Your task to perform on an android device: Show me productivity apps on the Play Store Image 0: 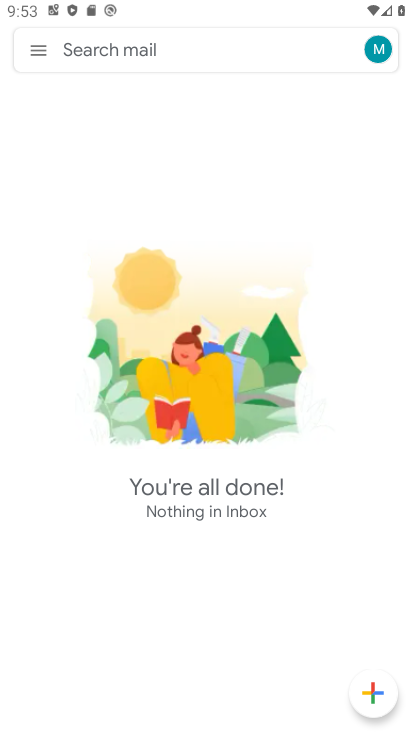
Step 0: press home button
Your task to perform on an android device: Show me productivity apps on the Play Store Image 1: 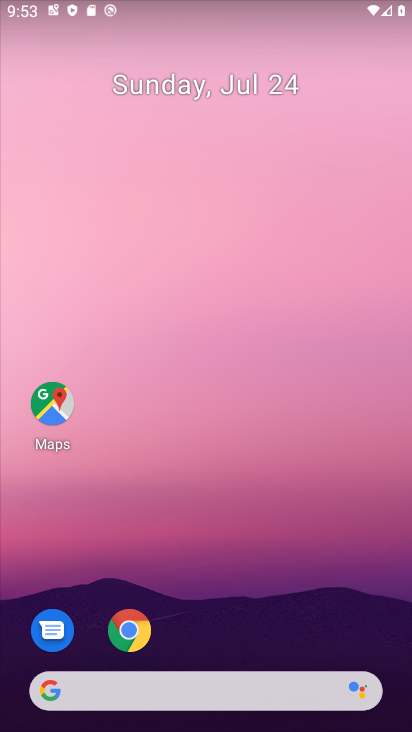
Step 1: drag from (215, 581) to (215, 89)
Your task to perform on an android device: Show me productivity apps on the Play Store Image 2: 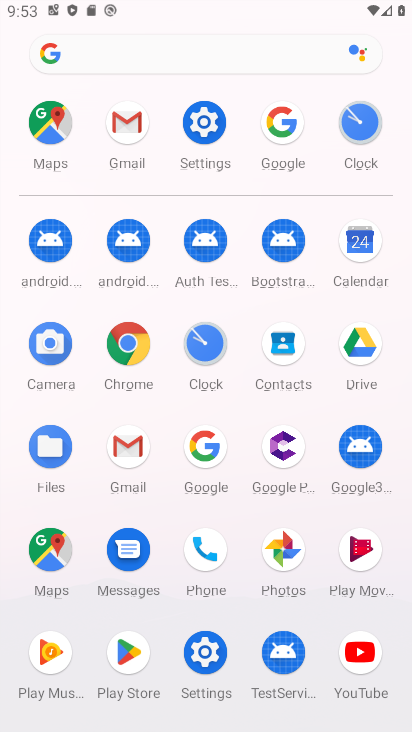
Step 2: click (143, 652)
Your task to perform on an android device: Show me productivity apps on the Play Store Image 3: 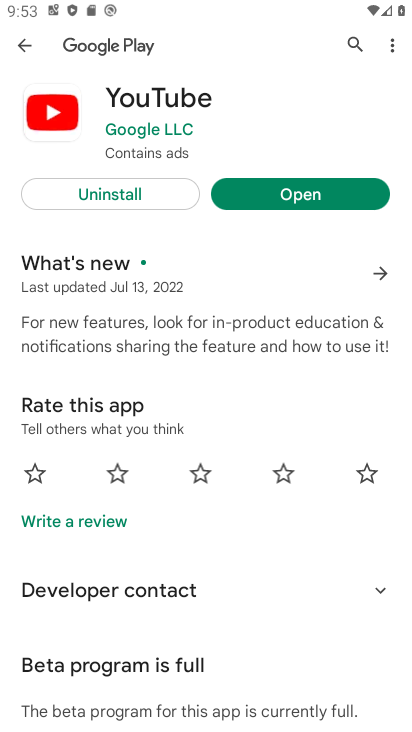
Step 3: click (23, 52)
Your task to perform on an android device: Show me productivity apps on the Play Store Image 4: 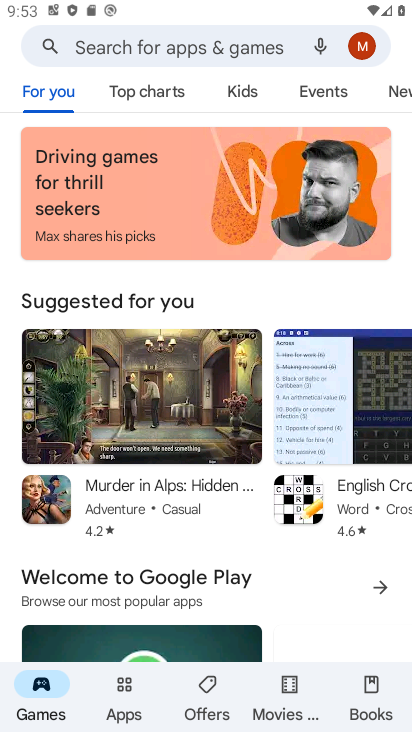
Step 4: click (134, 694)
Your task to perform on an android device: Show me productivity apps on the Play Store Image 5: 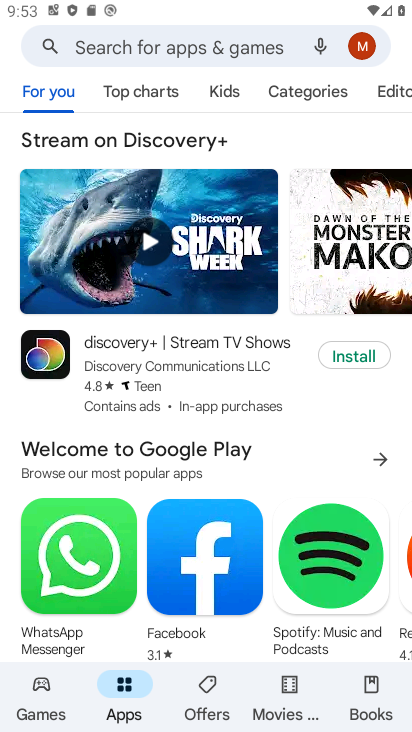
Step 5: click (327, 104)
Your task to perform on an android device: Show me productivity apps on the Play Store Image 6: 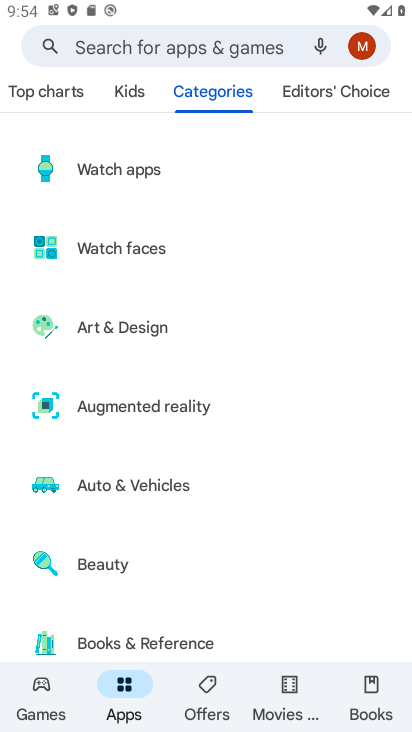
Step 6: click (157, 114)
Your task to perform on an android device: Show me productivity apps on the Play Store Image 7: 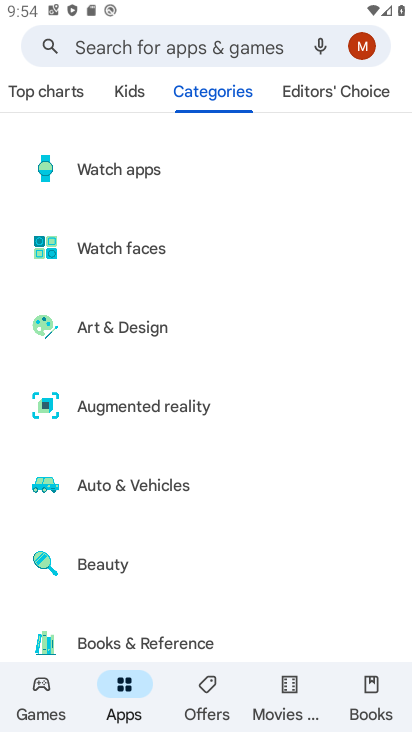
Step 7: drag from (150, 524) to (191, 218)
Your task to perform on an android device: Show me productivity apps on the Play Store Image 8: 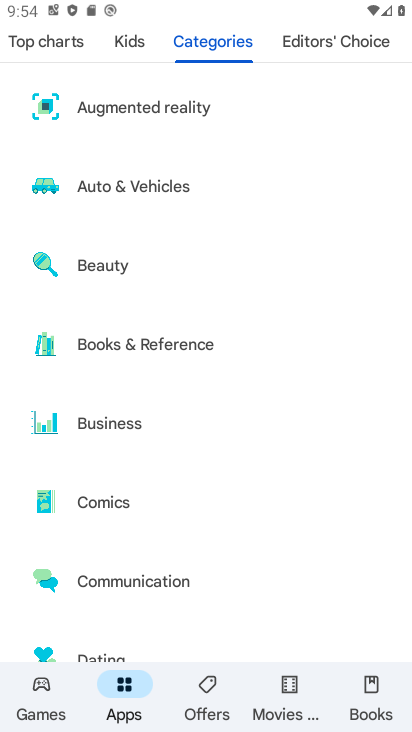
Step 8: drag from (189, 556) to (198, 192)
Your task to perform on an android device: Show me productivity apps on the Play Store Image 9: 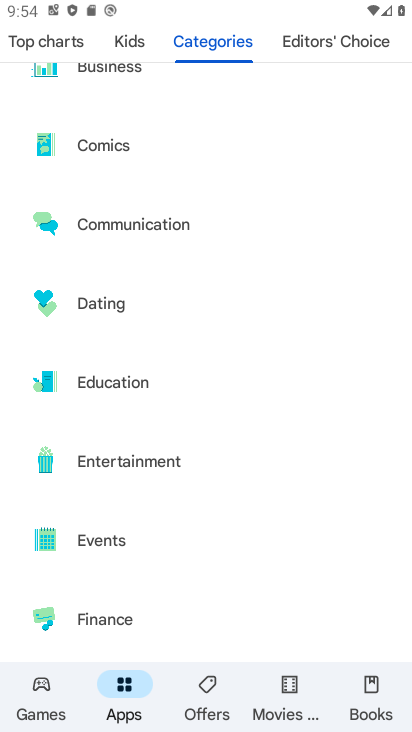
Step 9: drag from (178, 579) to (216, 201)
Your task to perform on an android device: Show me productivity apps on the Play Store Image 10: 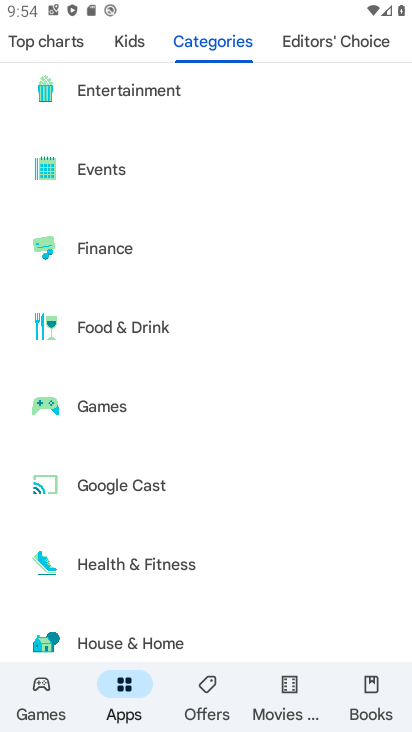
Step 10: drag from (164, 604) to (173, 181)
Your task to perform on an android device: Show me productivity apps on the Play Store Image 11: 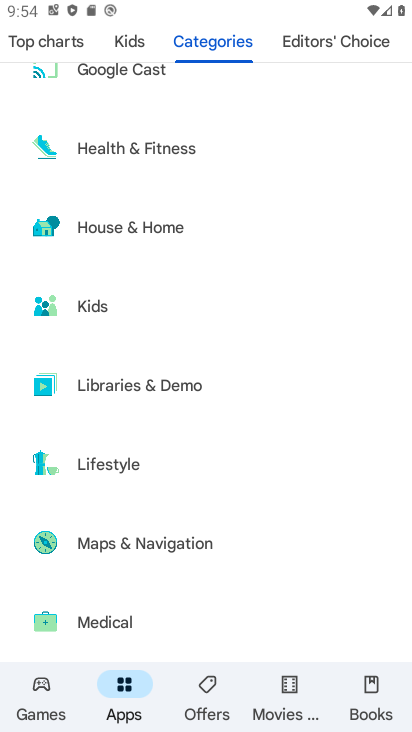
Step 11: drag from (162, 552) to (188, 176)
Your task to perform on an android device: Show me productivity apps on the Play Store Image 12: 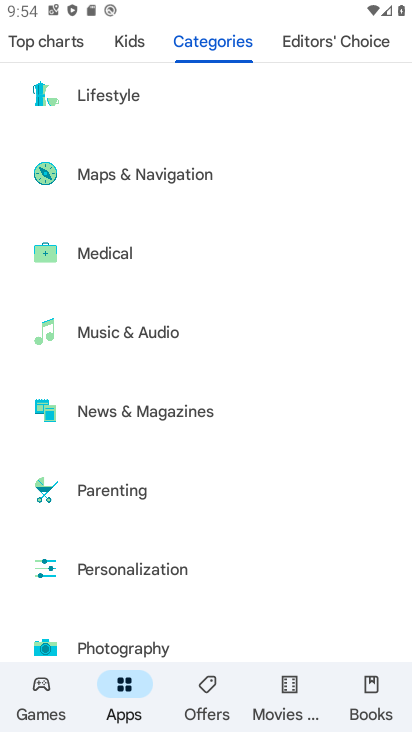
Step 12: drag from (193, 545) to (215, 192)
Your task to perform on an android device: Show me productivity apps on the Play Store Image 13: 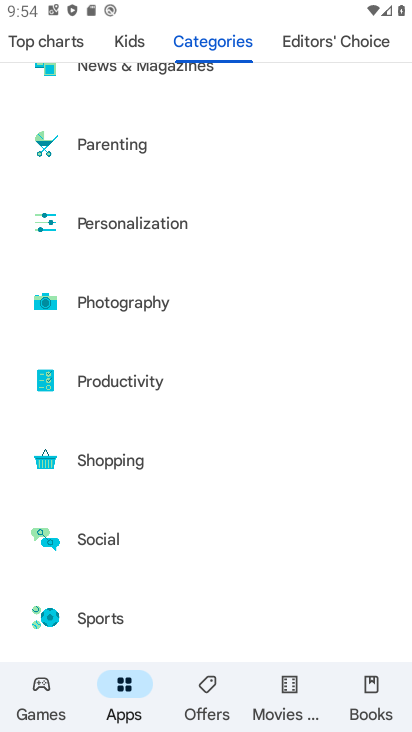
Step 13: click (189, 397)
Your task to perform on an android device: Show me productivity apps on the Play Store Image 14: 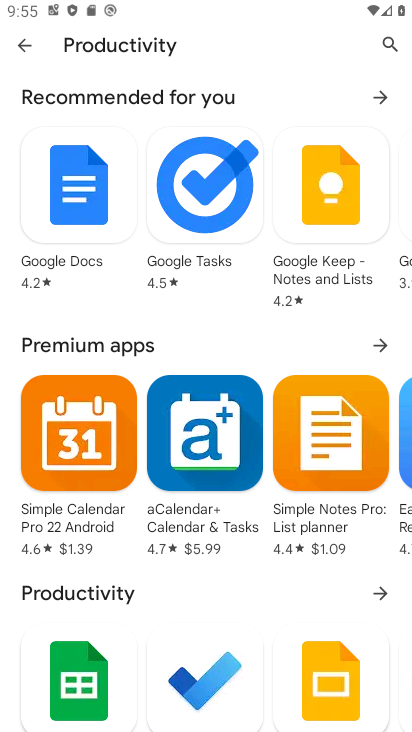
Step 14: task complete